Your task to perform on an android device: toggle improve location accuracy Image 0: 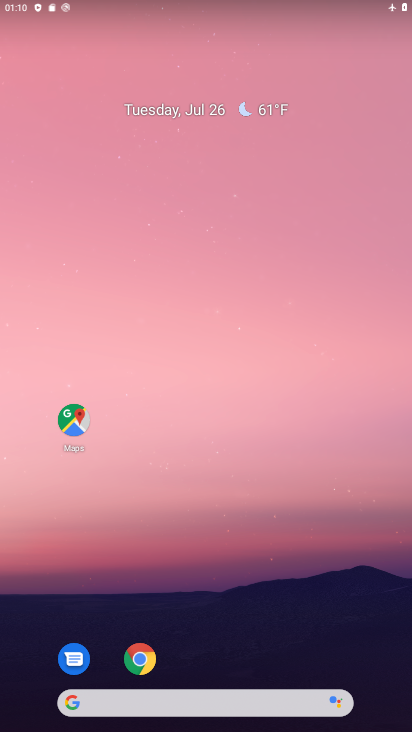
Step 0: drag from (210, 526) to (162, 103)
Your task to perform on an android device: toggle improve location accuracy Image 1: 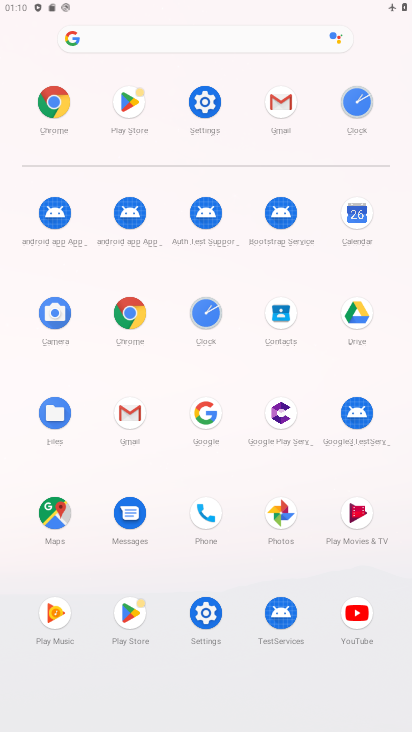
Step 1: click (207, 109)
Your task to perform on an android device: toggle improve location accuracy Image 2: 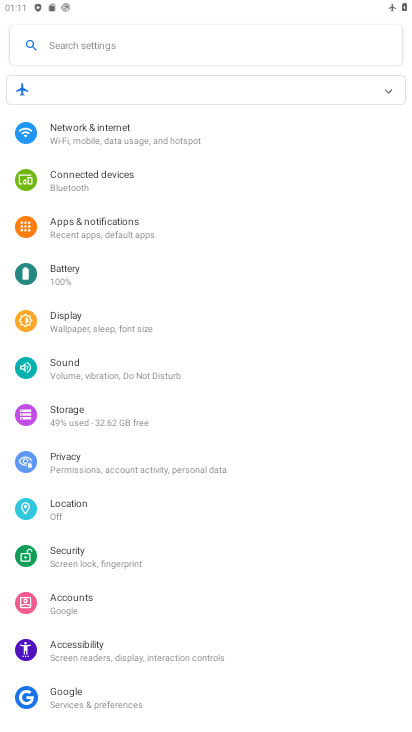
Step 2: click (80, 512)
Your task to perform on an android device: toggle improve location accuracy Image 3: 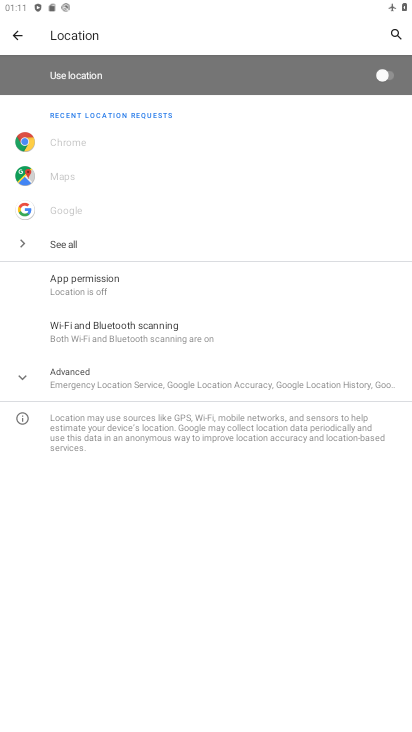
Step 3: click (98, 361)
Your task to perform on an android device: toggle improve location accuracy Image 4: 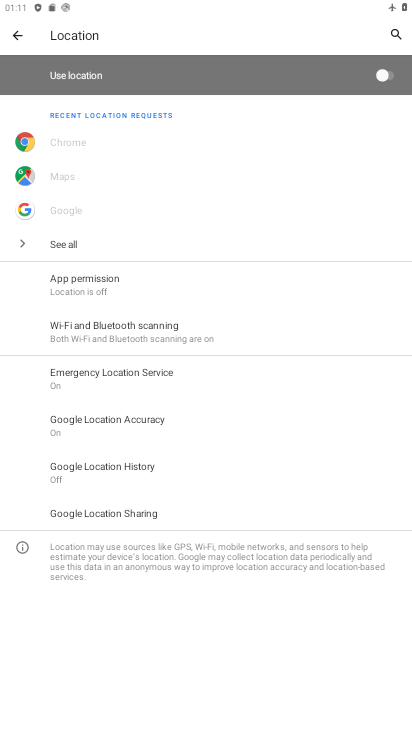
Step 4: click (133, 423)
Your task to perform on an android device: toggle improve location accuracy Image 5: 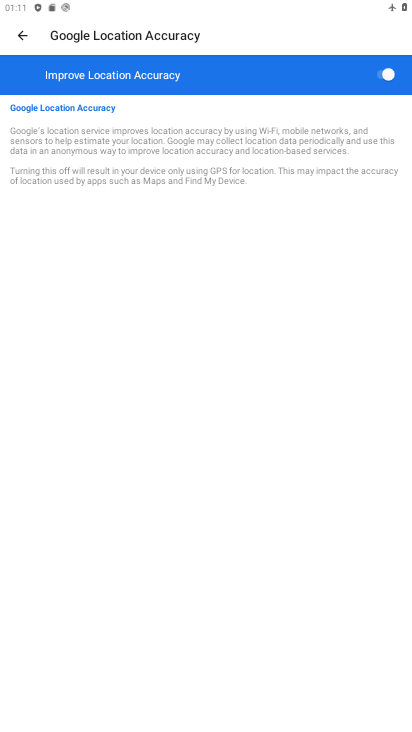
Step 5: click (382, 68)
Your task to perform on an android device: toggle improve location accuracy Image 6: 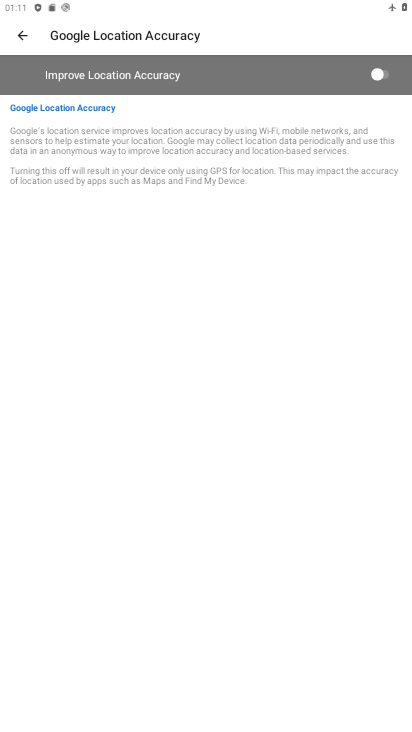
Step 6: task complete